Your task to perform on an android device: change notifications settings Image 0: 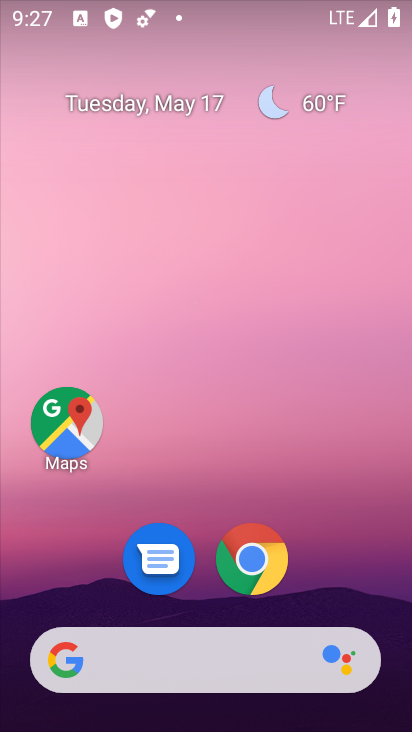
Step 0: drag from (214, 610) to (245, 194)
Your task to perform on an android device: change notifications settings Image 1: 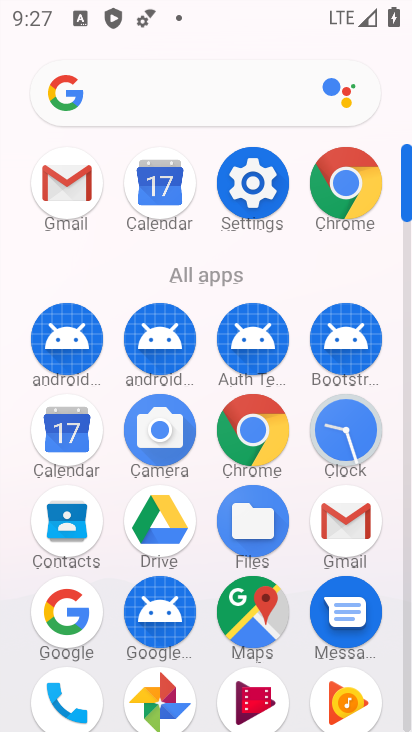
Step 1: click (231, 187)
Your task to perform on an android device: change notifications settings Image 2: 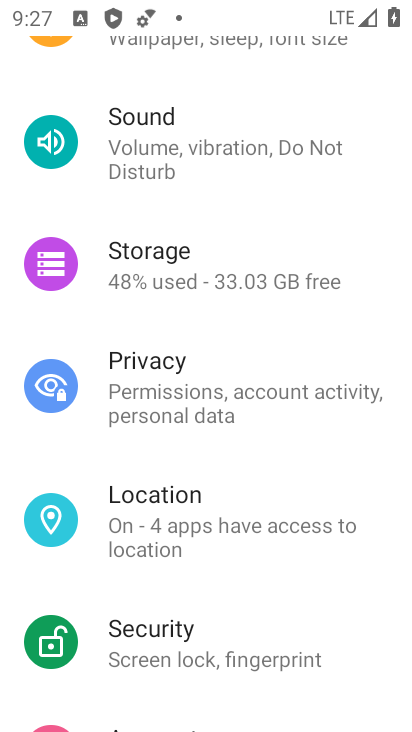
Step 2: drag from (212, 249) to (208, 591)
Your task to perform on an android device: change notifications settings Image 3: 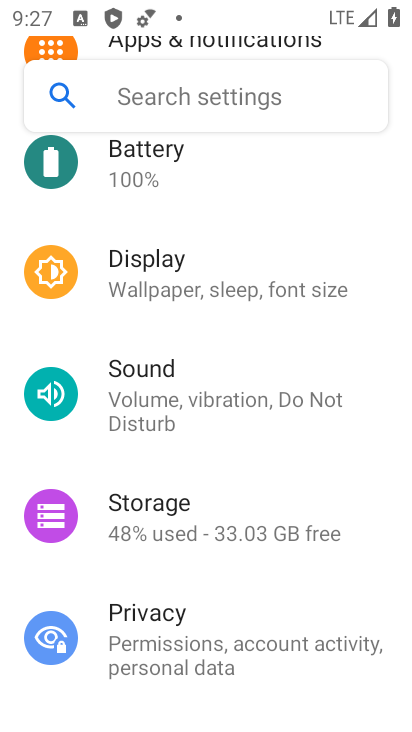
Step 3: drag from (250, 190) to (253, 561)
Your task to perform on an android device: change notifications settings Image 4: 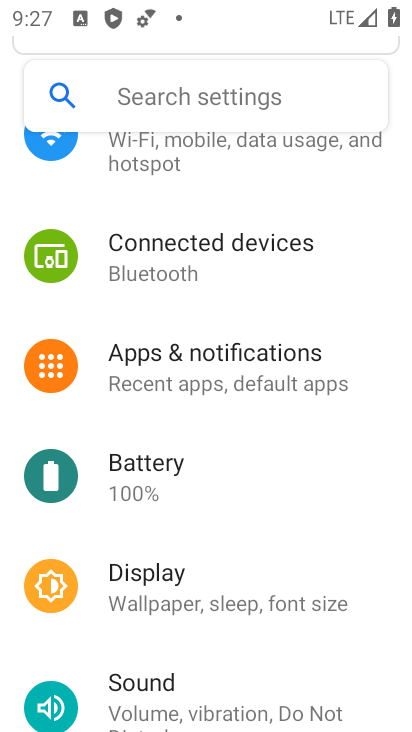
Step 4: click (215, 369)
Your task to perform on an android device: change notifications settings Image 5: 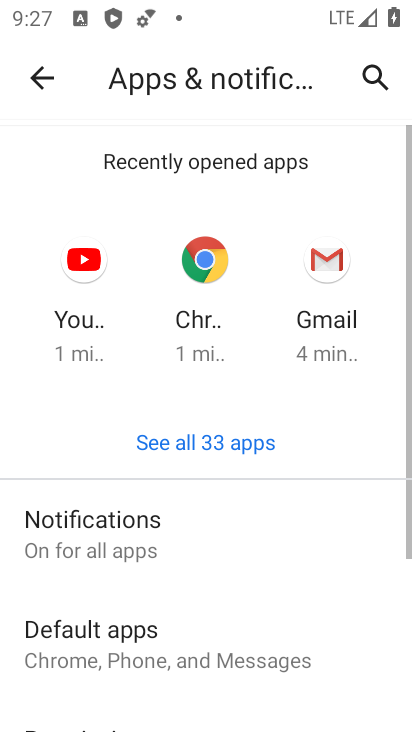
Step 5: click (140, 536)
Your task to perform on an android device: change notifications settings Image 6: 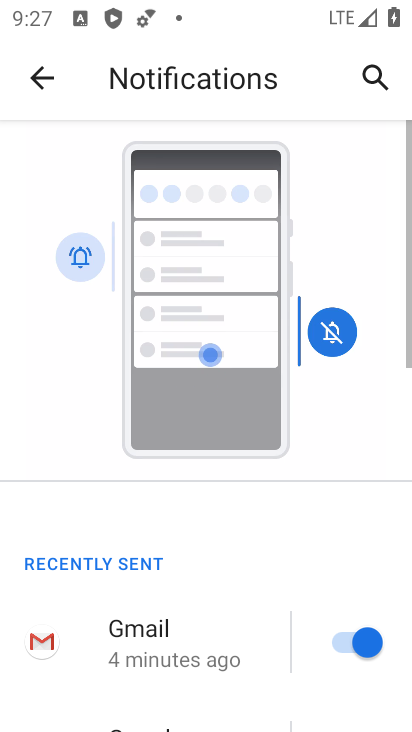
Step 6: drag from (157, 609) to (206, 238)
Your task to perform on an android device: change notifications settings Image 7: 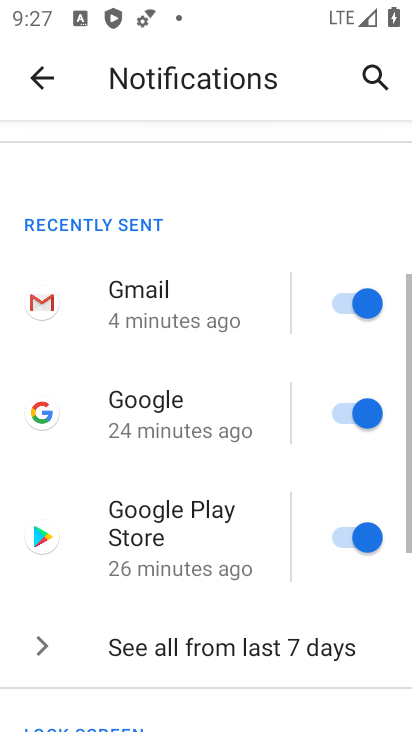
Step 7: drag from (198, 628) to (210, 351)
Your task to perform on an android device: change notifications settings Image 8: 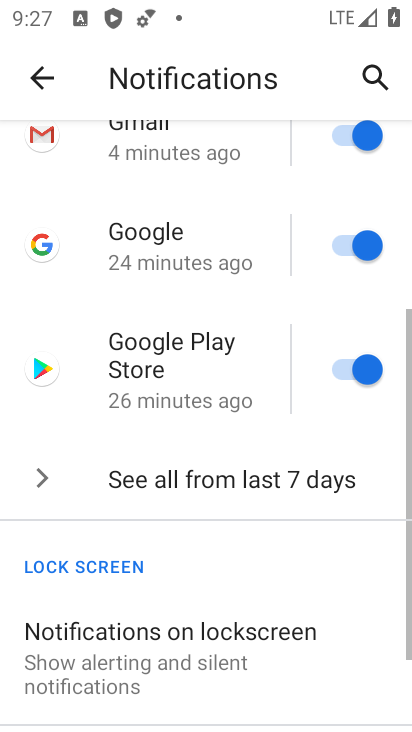
Step 8: drag from (201, 619) to (213, 279)
Your task to perform on an android device: change notifications settings Image 9: 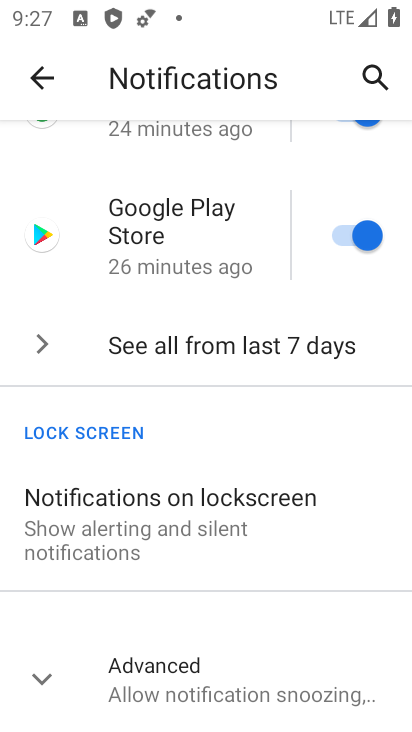
Step 9: click (187, 528)
Your task to perform on an android device: change notifications settings Image 10: 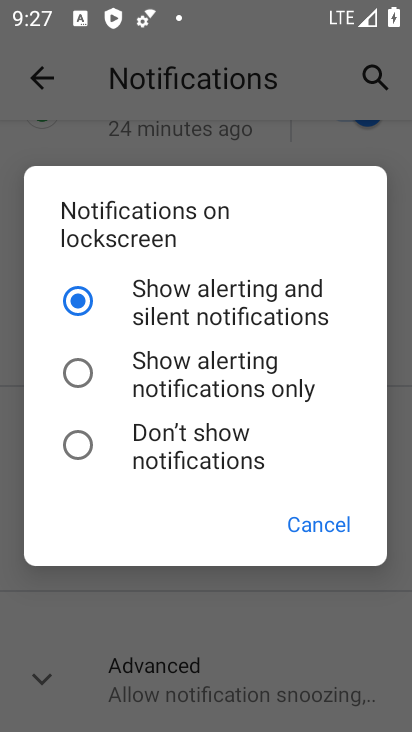
Step 10: click (162, 437)
Your task to perform on an android device: change notifications settings Image 11: 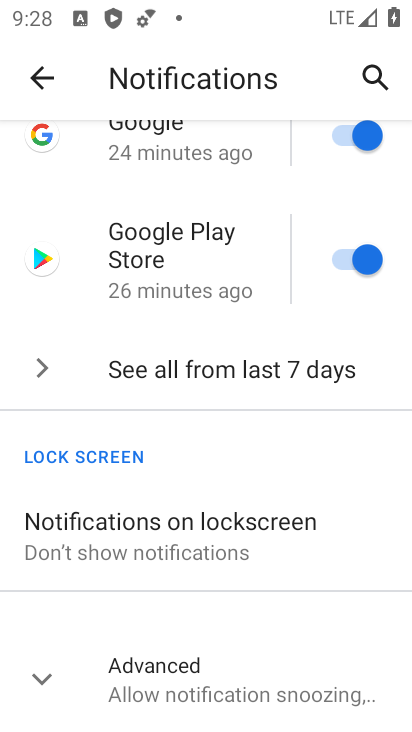
Step 11: task complete